Your task to perform on an android device: Go to wifi settings Image 0: 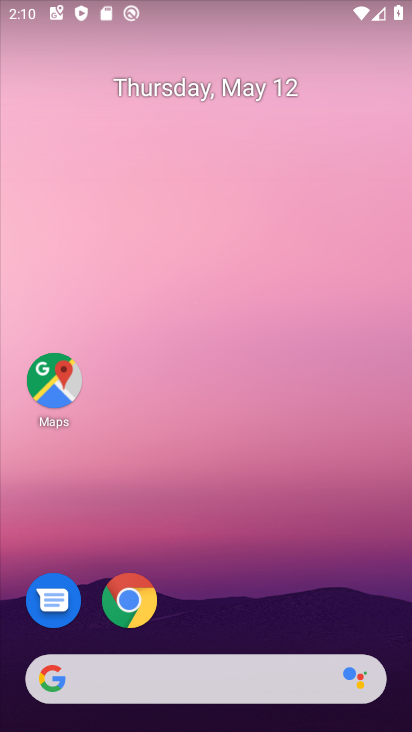
Step 0: drag from (291, 577) to (211, 0)
Your task to perform on an android device: Go to wifi settings Image 1: 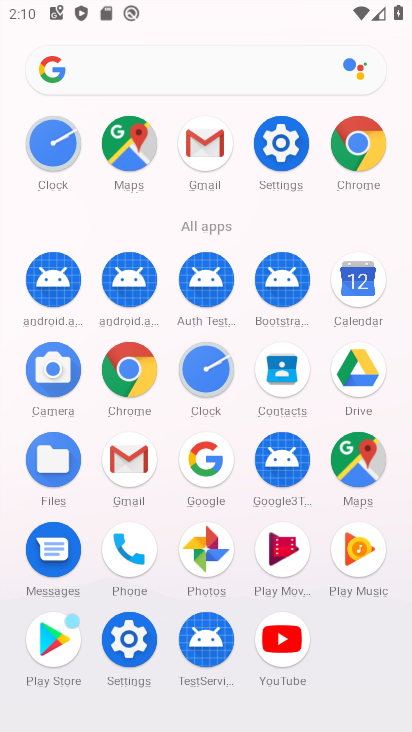
Step 1: click (268, 155)
Your task to perform on an android device: Go to wifi settings Image 2: 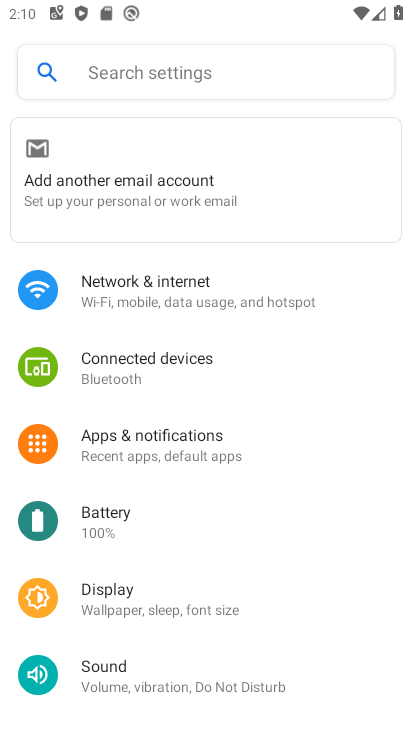
Step 2: click (166, 271)
Your task to perform on an android device: Go to wifi settings Image 3: 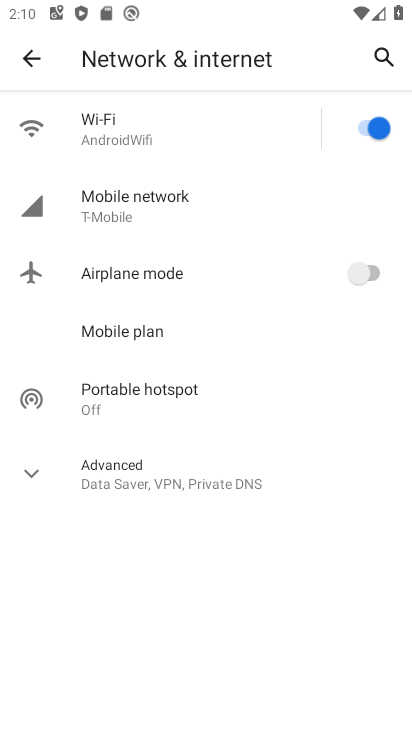
Step 3: click (141, 118)
Your task to perform on an android device: Go to wifi settings Image 4: 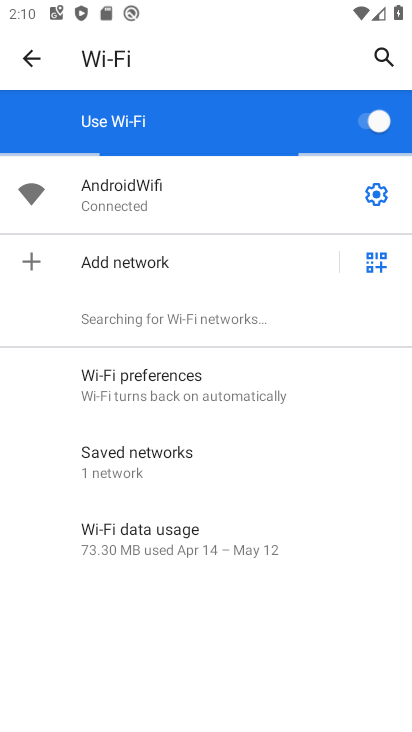
Step 4: task complete